Your task to perform on an android device: Go to display settings Image 0: 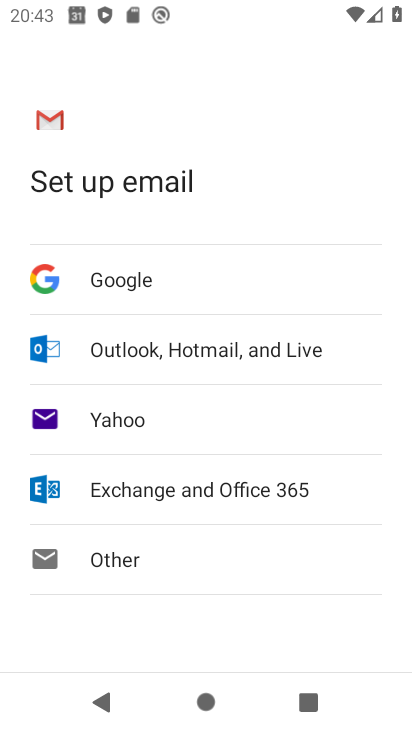
Step 0: press home button
Your task to perform on an android device: Go to display settings Image 1: 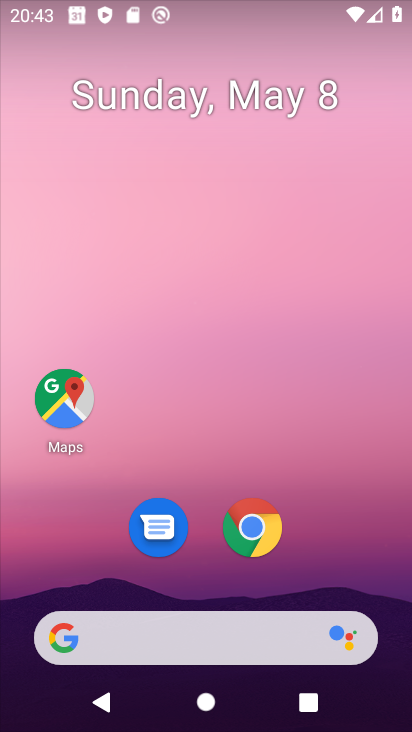
Step 1: drag from (211, 513) to (267, 93)
Your task to perform on an android device: Go to display settings Image 2: 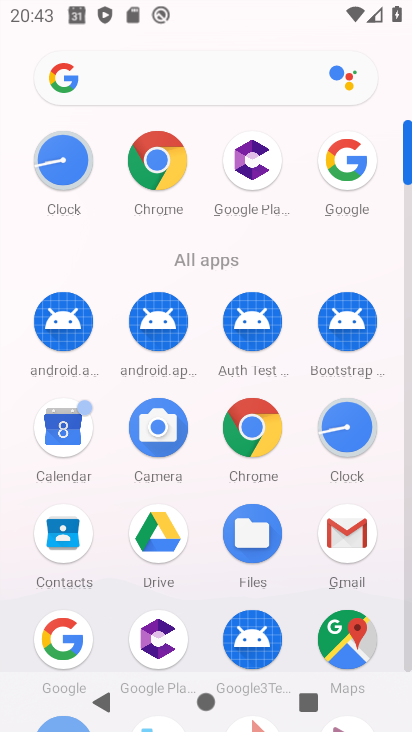
Step 2: drag from (209, 510) to (260, 8)
Your task to perform on an android device: Go to display settings Image 3: 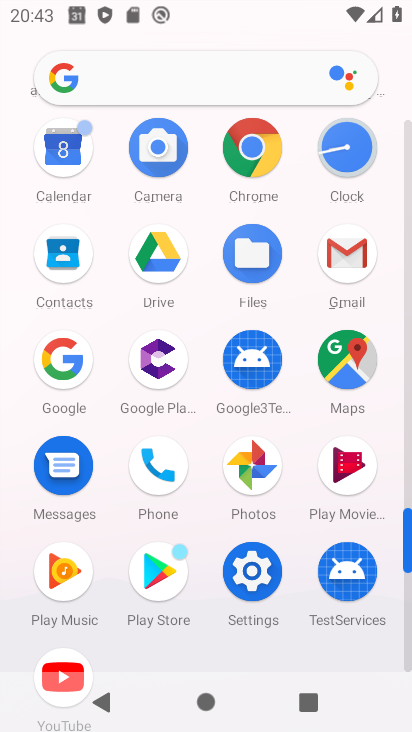
Step 3: click (244, 571)
Your task to perform on an android device: Go to display settings Image 4: 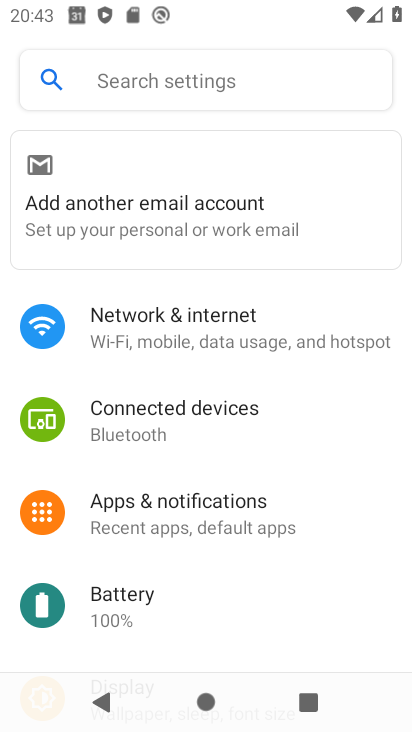
Step 4: drag from (142, 612) to (194, 213)
Your task to perform on an android device: Go to display settings Image 5: 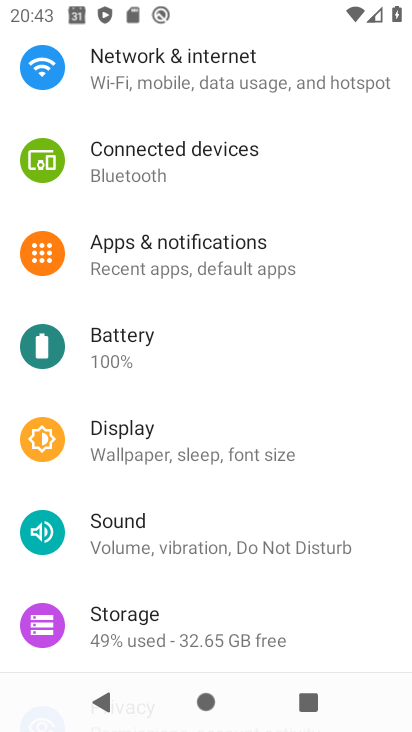
Step 5: click (121, 430)
Your task to perform on an android device: Go to display settings Image 6: 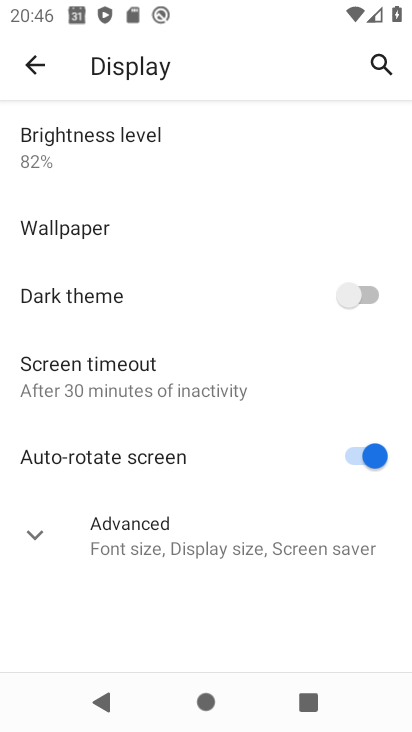
Step 6: task complete